Your task to perform on an android device: Open maps Image 0: 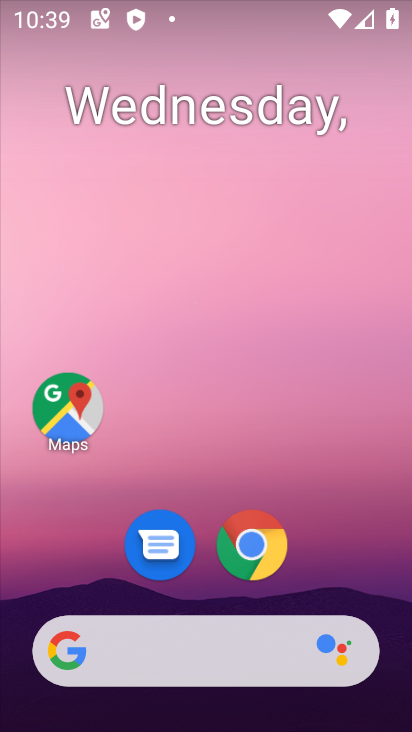
Step 0: click (86, 404)
Your task to perform on an android device: Open maps Image 1: 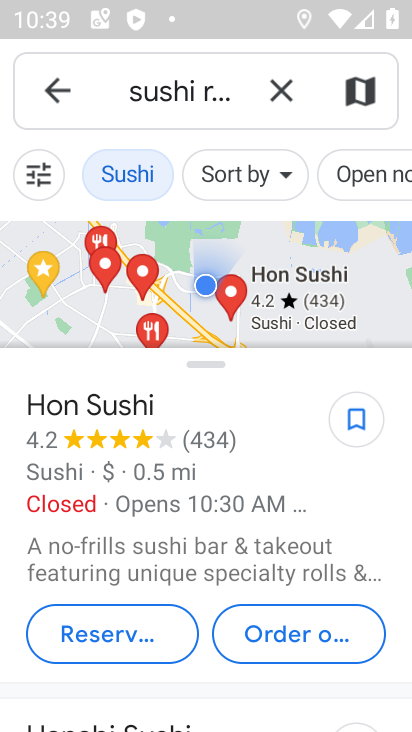
Step 1: task complete